Your task to perform on an android device: Go to settings Image 0: 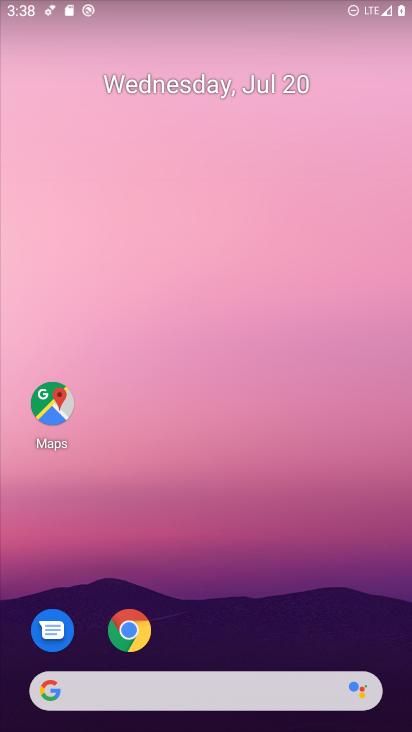
Step 0: press home button
Your task to perform on an android device: Go to settings Image 1: 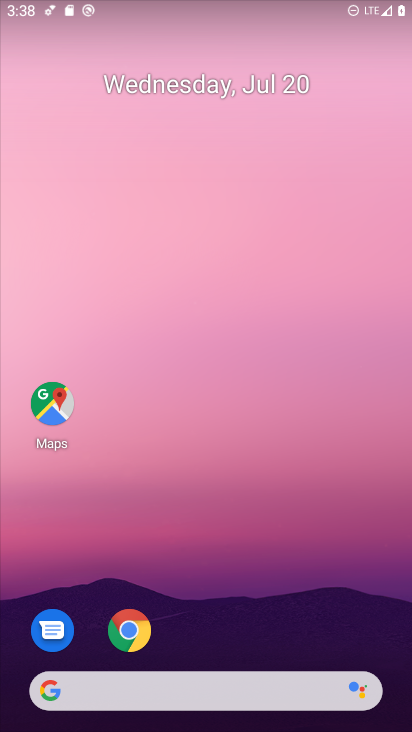
Step 1: drag from (231, 647) to (277, 94)
Your task to perform on an android device: Go to settings Image 2: 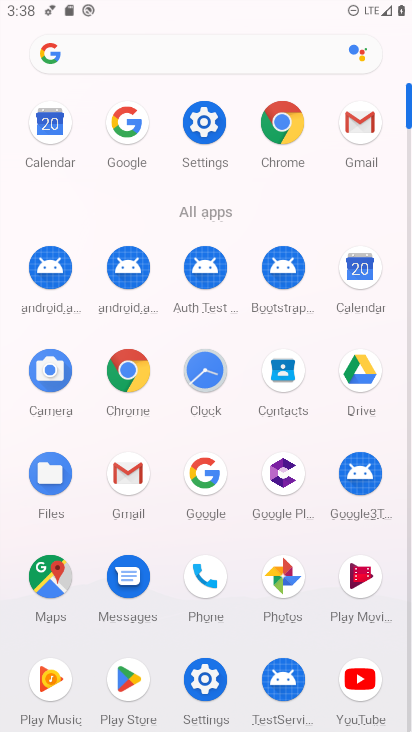
Step 2: click (204, 675)
Your task to perform on an android device: Go to settings Image 3: 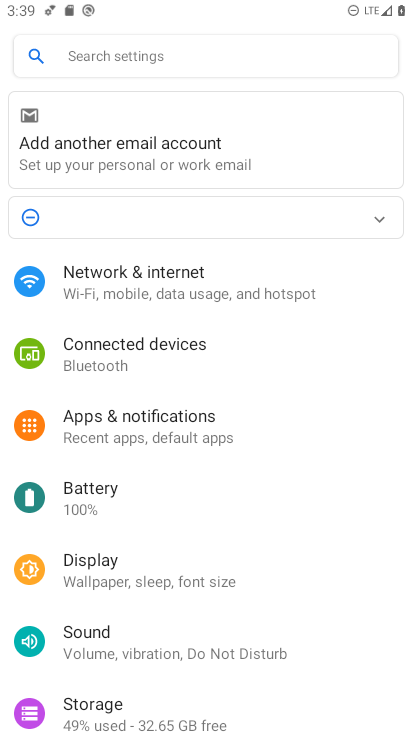
Step 3: task complete